Your task to perform on an android device: allow notifications from all sites in the chrome app Image 0: 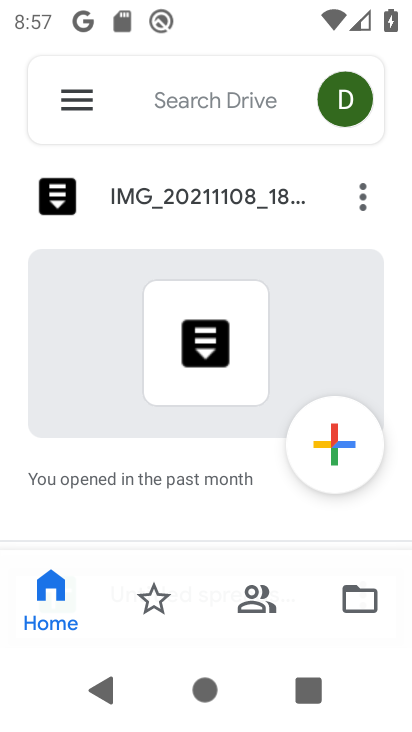
Step 0: press home button
Your task to perform on an android device: allow notifications from all sites in the chrome app Image 1: 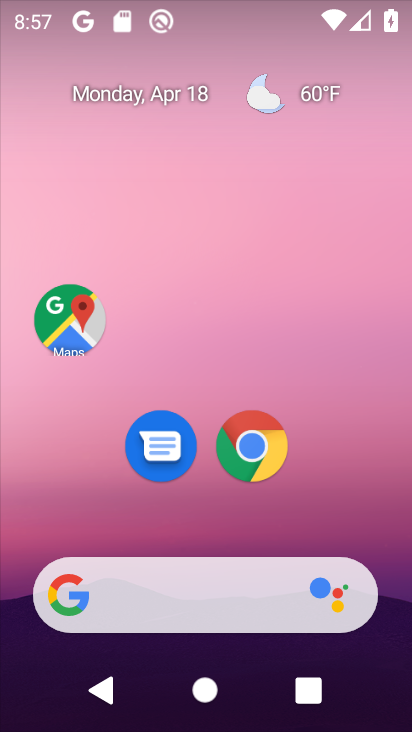
Step 1: drag from (353, 510) to (356, 105)
Your task to perform on an android device: allow notifications from all sites in the chrome app Image 2: 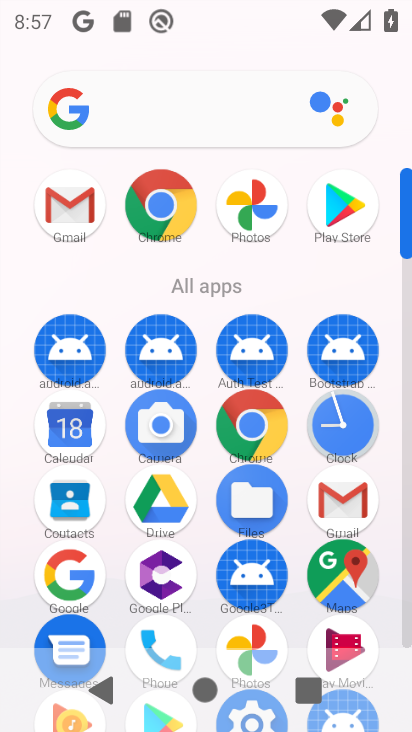
Step 2: click (259, 436)
Your task to perform on an android device: allow notifications from all sites in the chrome app Image 3: 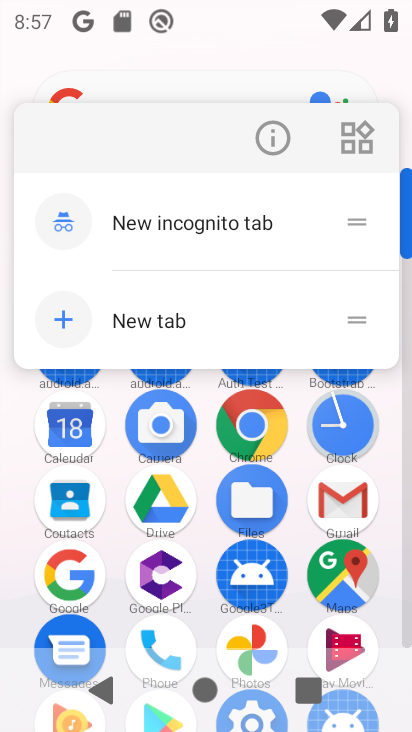
Step 3: click (260, 437)
Your task to perform on an android device: allow notifications from all sites in the chrome app Image 4: 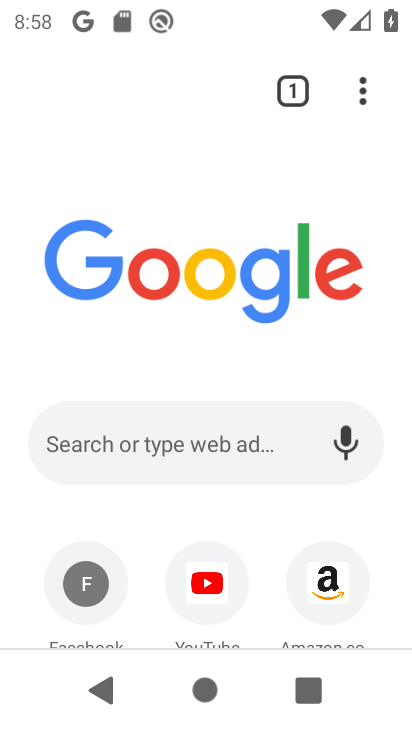
Step 4: click (360, 95)
Your task to perform on an android device: allow notifications from all sites in the chrome app Image 5: 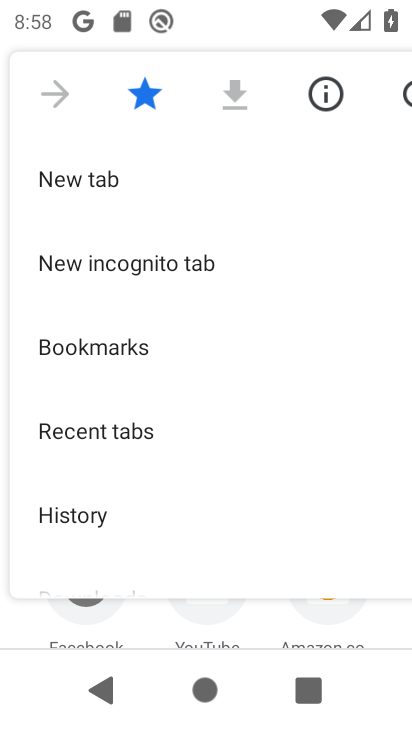
Step 5: drag from (304, 467) to (302, 298)
Your task to perform on an android device: allow notifications from all sites in the chrome app Image 6: 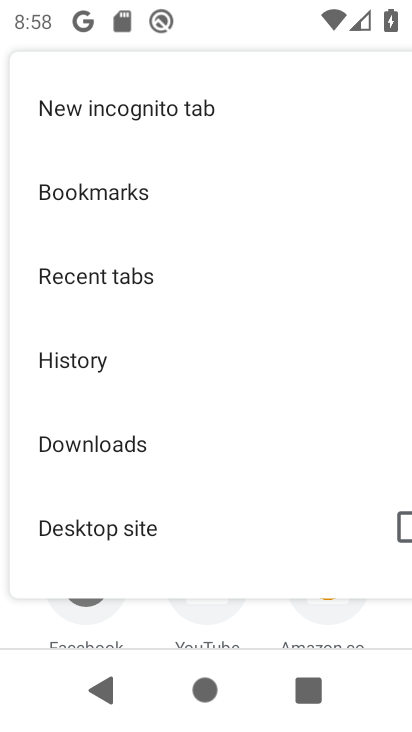
Step 6: drag from (303, 496) to (315, 303)
Your task to perform on an android device: allow notifications from all sites in the chrome app Image 7: 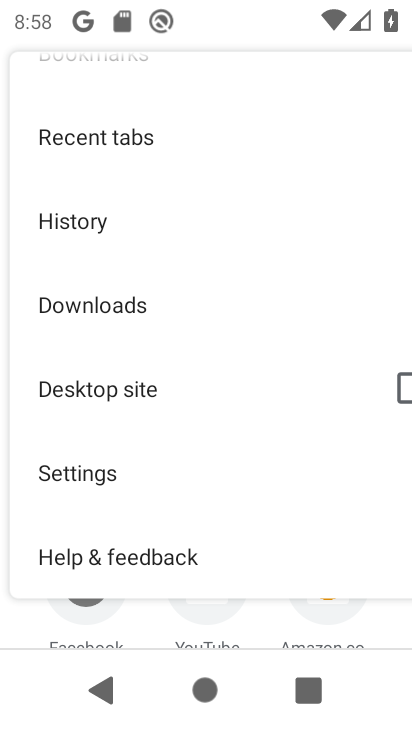
Step 7: click (103, 474)
Your task to perform on an android device: allow notifications from all sites in the chrome app Image 8: 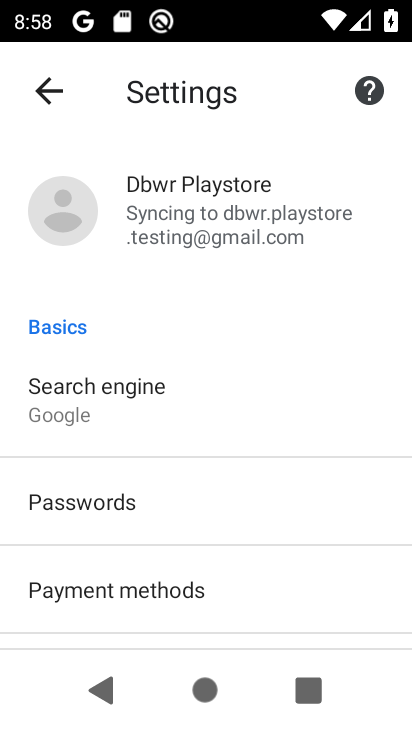
Step 8: drag from (315, 559) to (316, 383)
Your task to perform on an android device: allow notifications from all sites in the chrome app Image 9: 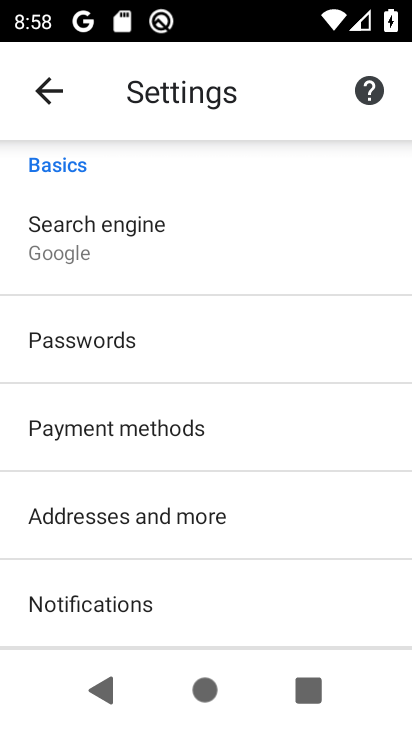
Step 9: drag from (331, 571) to (339, 379)
Your task to perform on an android device: allow notifications from all sites in the chrome app Image 10: 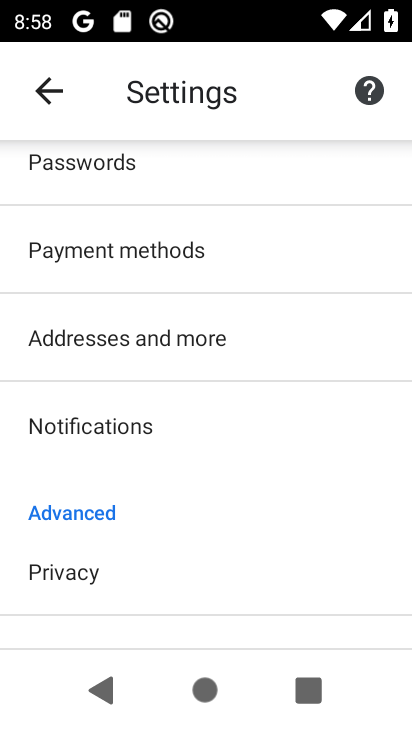
Step 10: drag from (327, 523) to (330, 366)
Your task to perform on an android device: allow notifications from all sites in the chrome app Image 11: 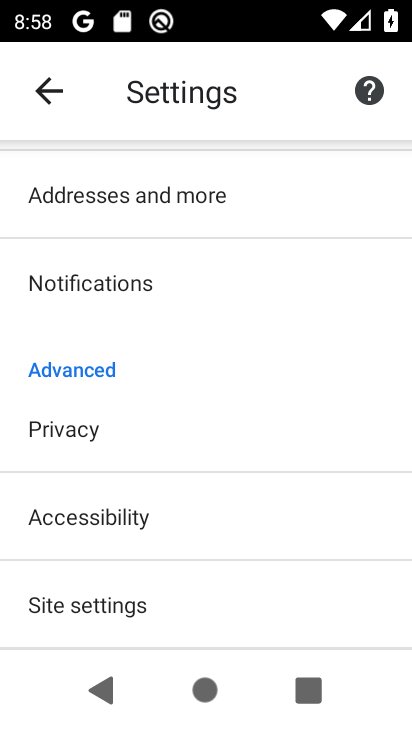
Step 11: drag from (324, 505) to (348, 322)
Your task to perform on an android device: allow notifications from all sites in the chrome app Image 12: 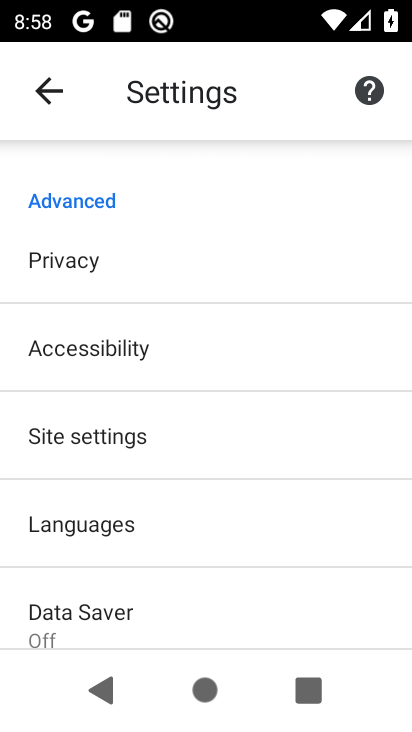
Step 12: click (267, 444)
Your task to perform on an android device: allow notifications from all sites in the chrome app Image 13: 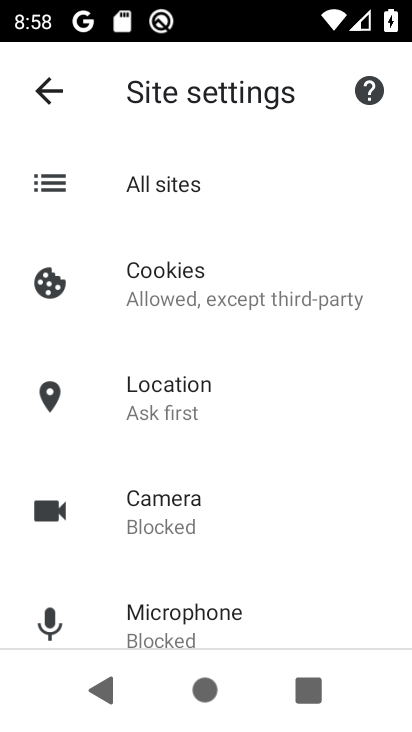
Step 13: drag from (320, 551) to (336, 384)
Your task to perform on an android device: allow notifications from all sites in the chrome app Image 14: 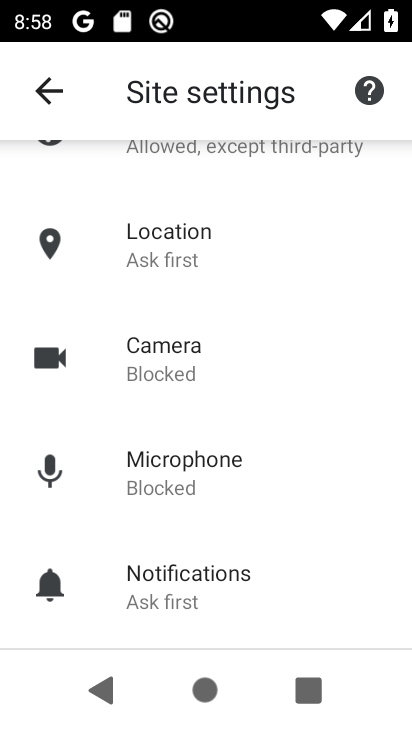
Step 14: drag from (341, 538) to (327, 403)
Your task to perform on an android device: allow notifications from all sites in the chrome app Image 15: 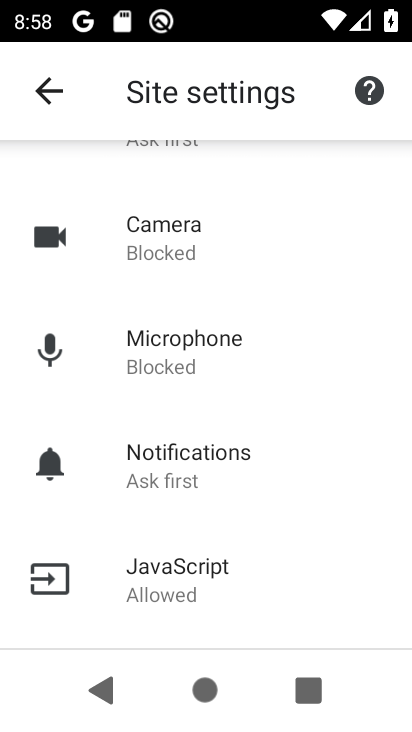
Step 15: click (238, 463)
Your task to perform on an android device: allow notifications from all sites in the chrome app Image 16: 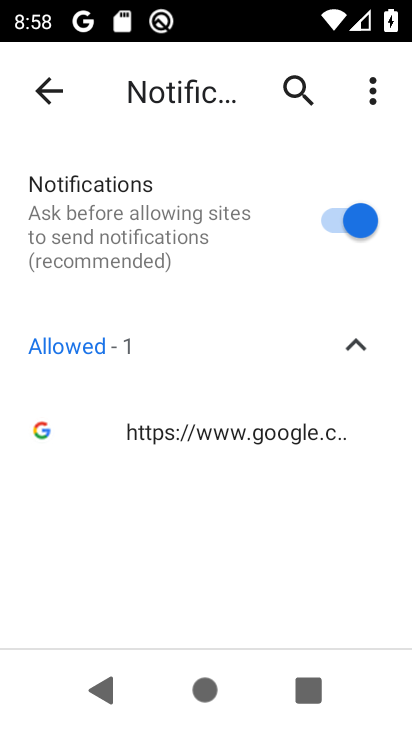
Step 16: task complete